Your task to perform on an android device: turn on improve location accuracy Image 0: 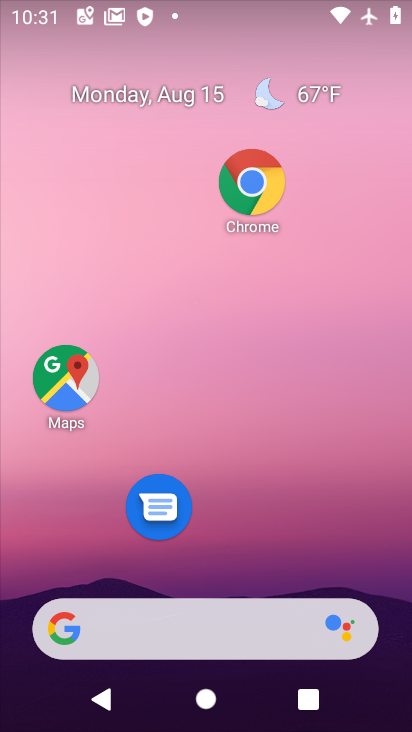
Step 0: drag from (256, 597) to (312, 3)
Your task to perform on an android device: turn on improve location accuracy Image 1: 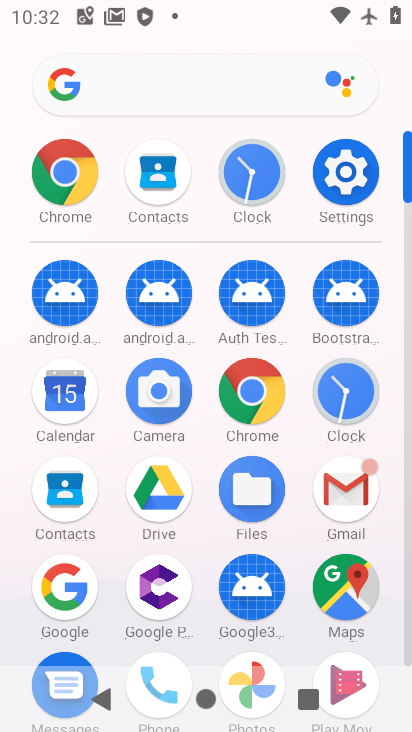
Step 1: click (362, 239)
Your task to perform on an android device: turn on improve location accuracy Image 2: 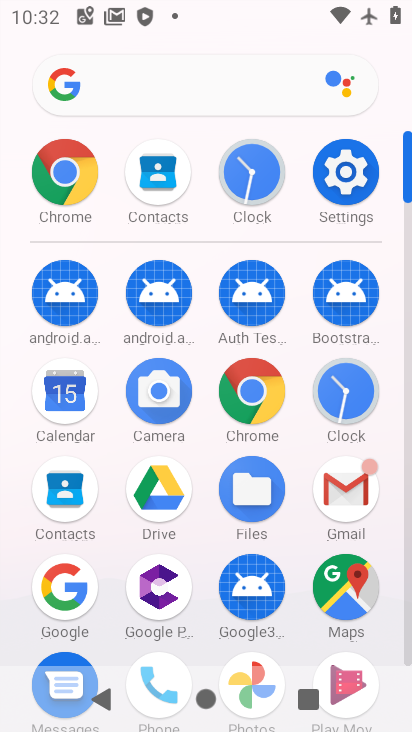
Step 2: click (330, 208)
Your task to perform on an android device: turn on improve location accuracy Image 3: 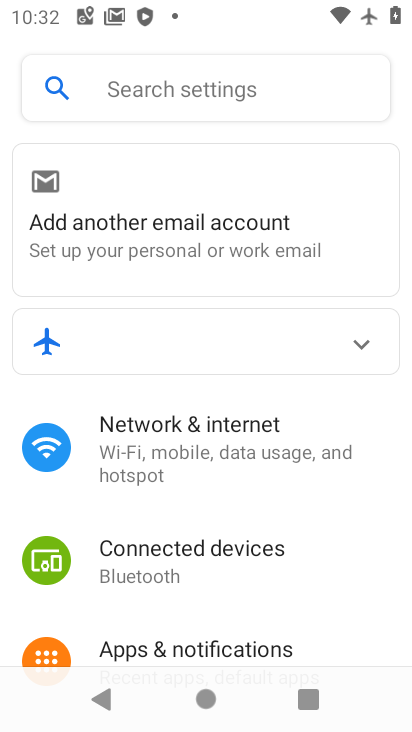
Step 3: drag from (186, 557) to (197, 301)
Your task to perform on an android device: turn on improve location accuracy Image 4: 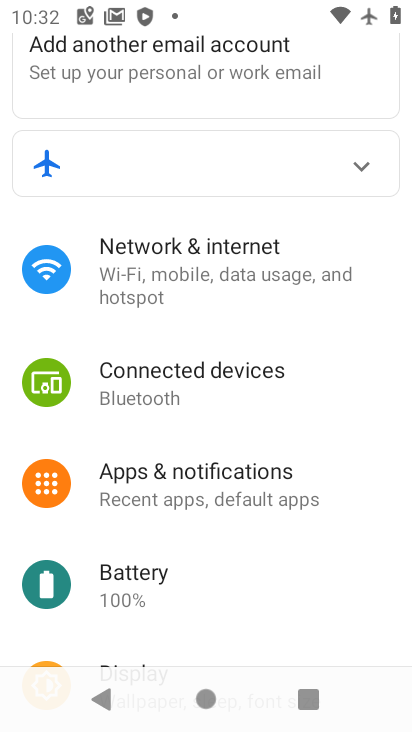
Step 4: drag from (197, 562) to (195, 220)
Your task to perform on an android device: turn on improve location accuracy Image 5: 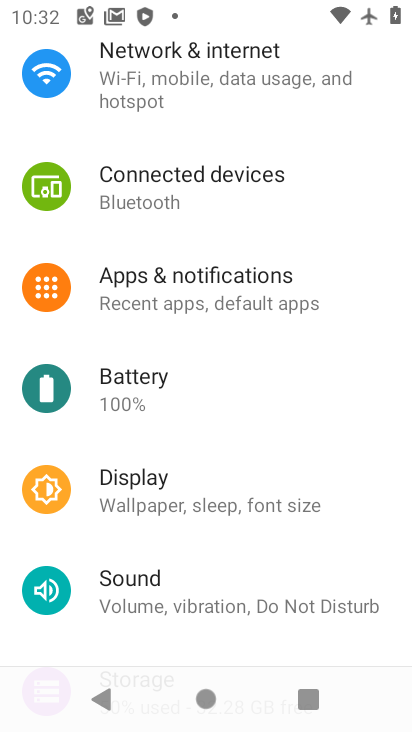
Step 5: drag from (198, 625) to (219, 21)
Your task to perform on an android device: turn on improve location accuracy Image 6: 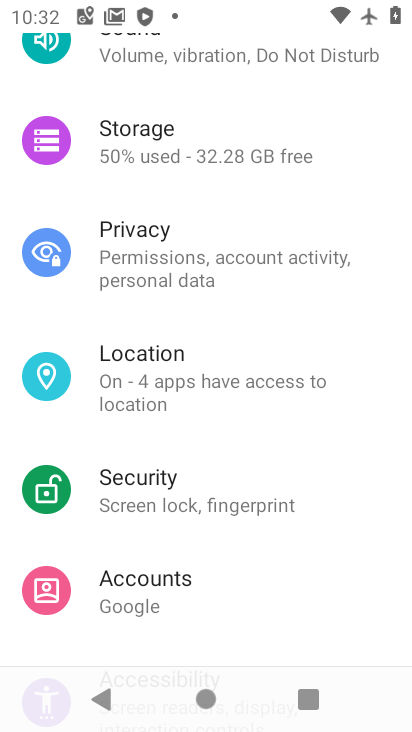
Step 6: click (227, 391)
Your task to perform on an android device: turn on improve location accuracy Image 7: 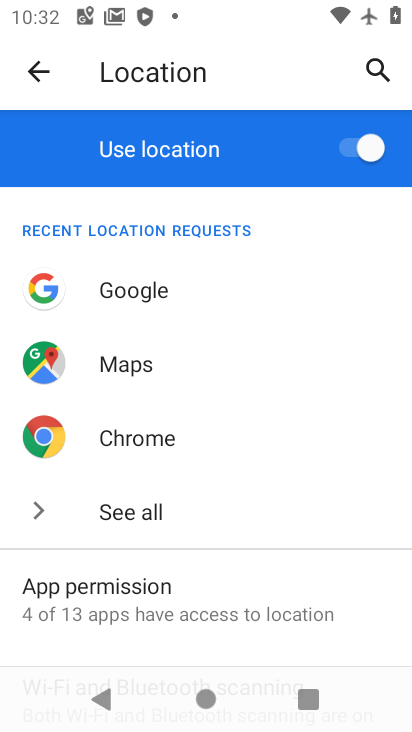
Step 7: task complete